Your task to perform on an android device: delete location history Image 0: 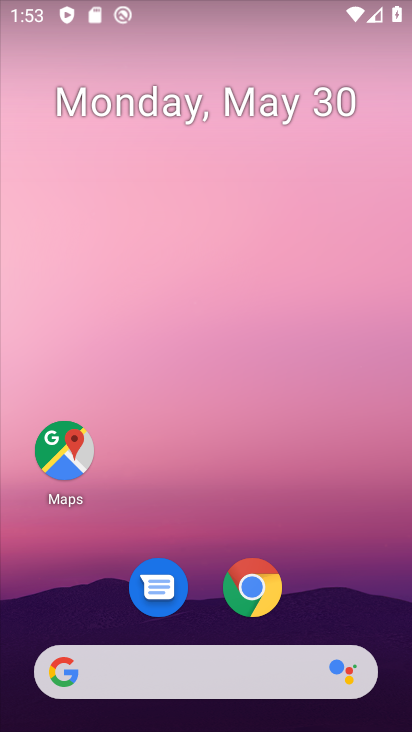
Step 0: drag from (134, 731) to (132, 96)
Your task to perform on an android device: delete location history Image 1: 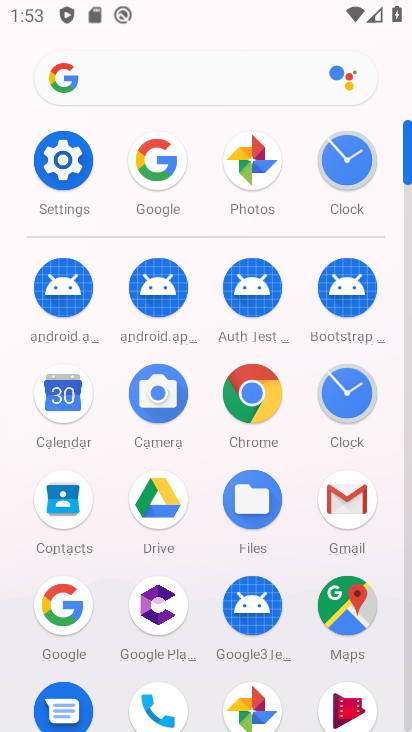
Step 1: click (47, 168)
Your task to perform on an android device: delete location history Image 2: 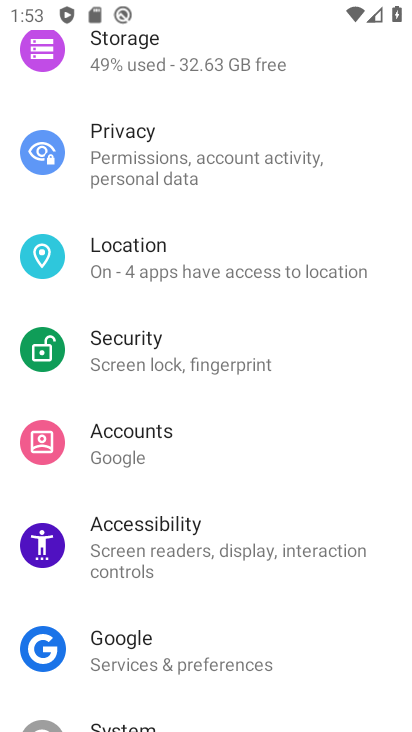
Step 2: click (166, 265)
Your task to perform on an android device: delete location history Image 3: 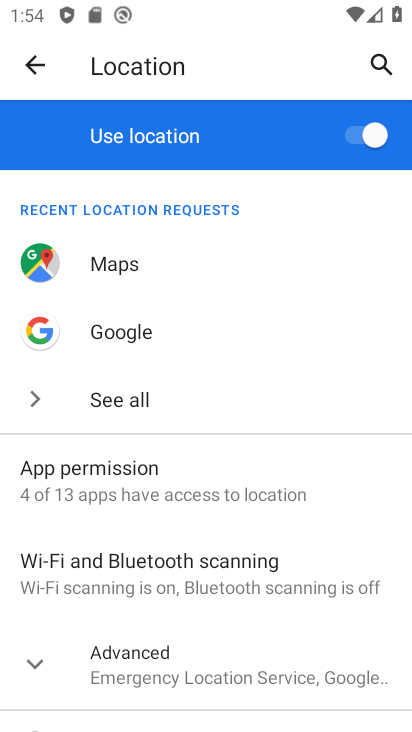
Step 3: click (188, 678)
Your task to perform on an android device: delete location history Image 4: 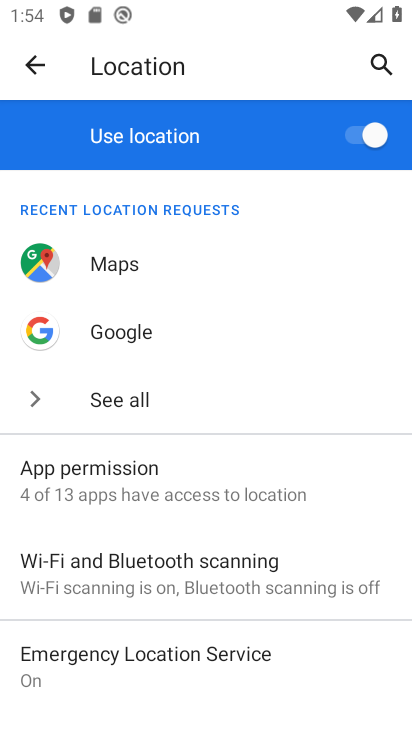
Step 4: drag from (187, 505) to (246, 182)
Your task to perform on an android device: delete location history Image 5: 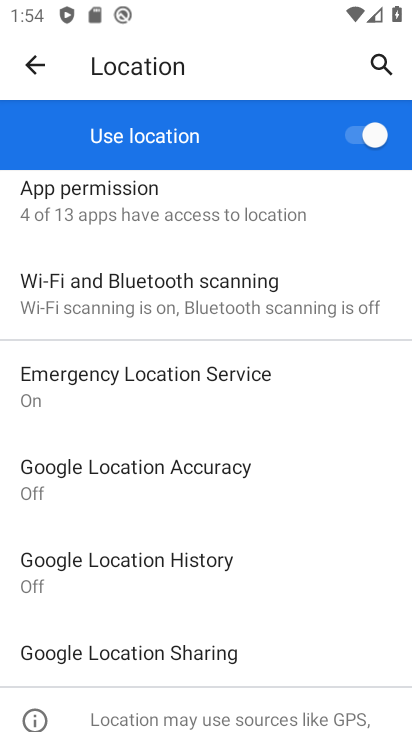
Step 5: click (201, 560)
Your task to perform on an android device: delete location history Image 6: 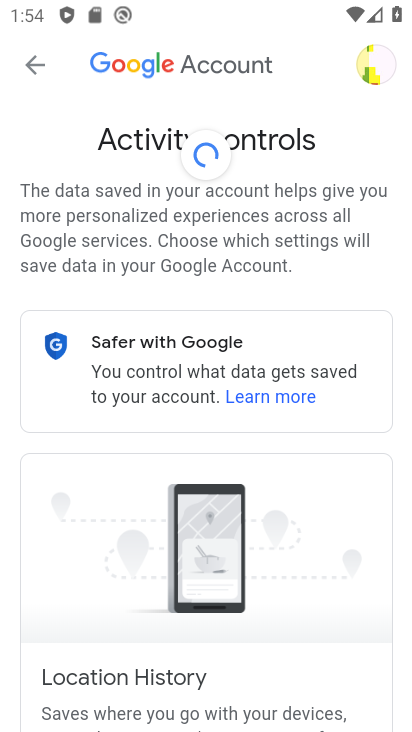
Step 6: drag from (119, 612) to (153, 226)
Your task to perform on an android device: delete location history Image 7: 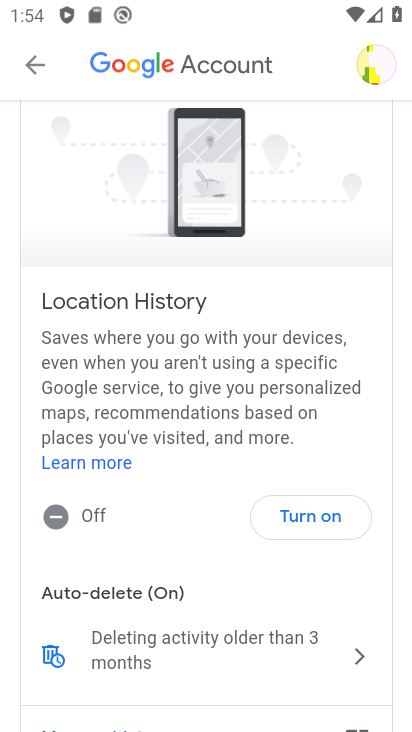
Step 7: click (229, 646)
Your task to perform on an android device: delete location history Image 8: 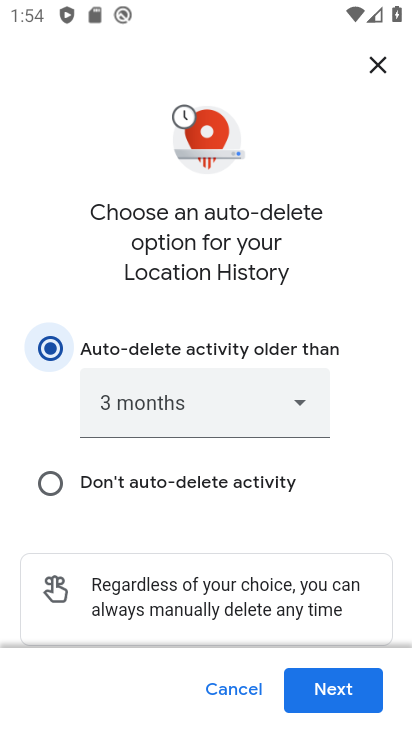
Step 8: click (274, 395)
Your task to perform on an android device: delete location history Image 9: 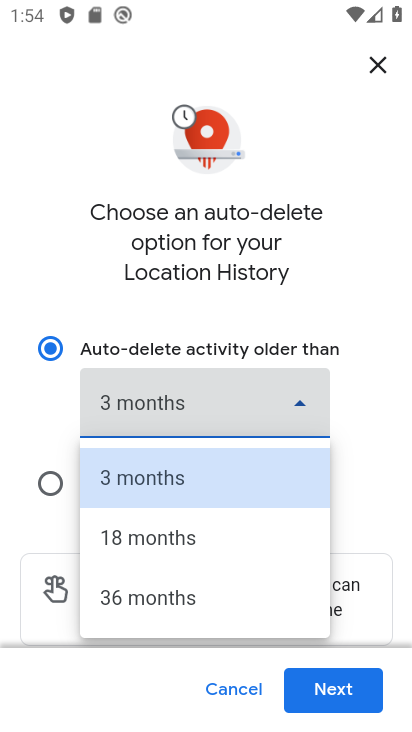
Step 9: click (241, 484)
Your task to perform on an android device: delete location history Image 10: 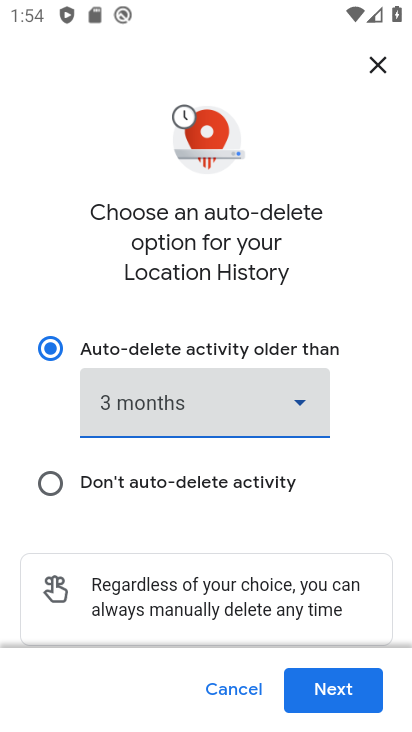
Step 10: click (348, 703)
Your task to perform on an android device: delete location history Image 11: 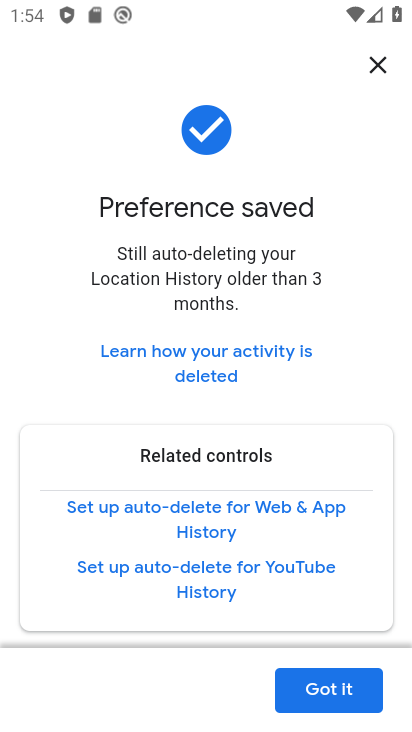
Step 11: click (346, 695)
Your task to perform on an android device: delete location history Image 12: 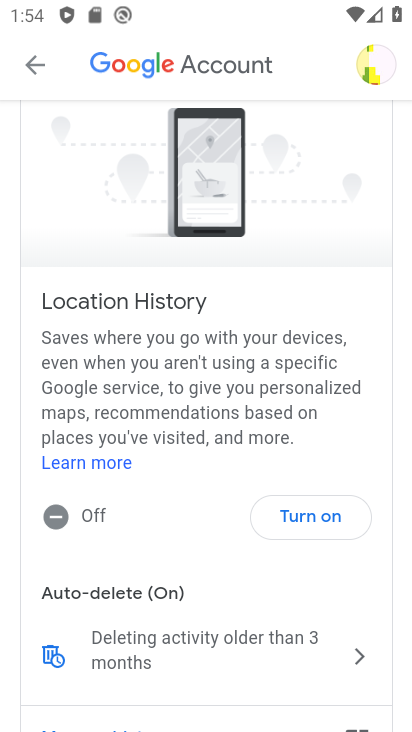
Step 12: task complete